Your task to perform on an android device: What is the news today? Image 0: 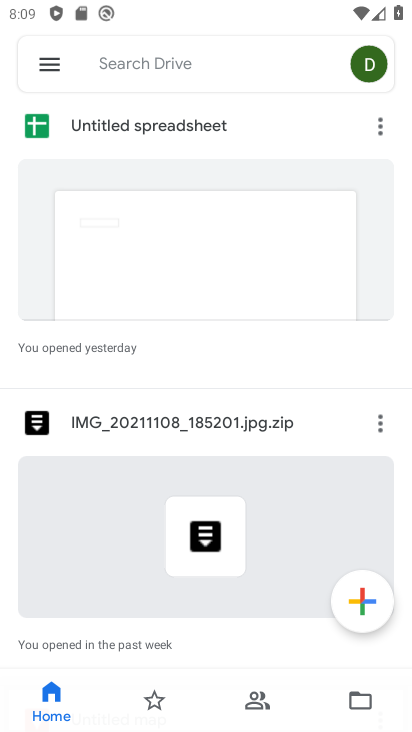
Step 0: press back button
Your task to perform on an android device: What is the news today? Image 1: 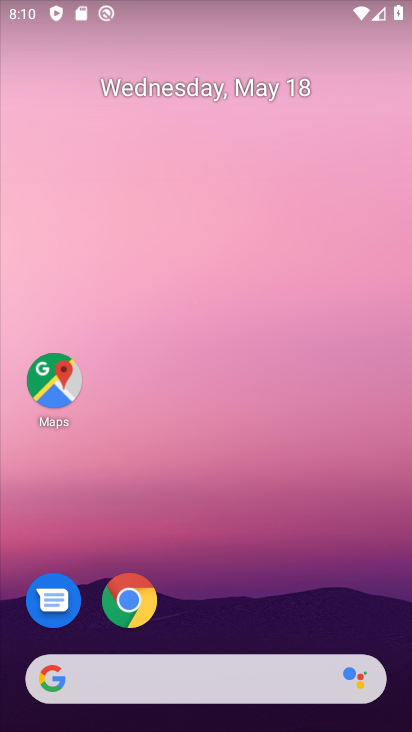
Step 1: click (223, 677)
Your task to perform on an android device: What is the news today? Image 2: 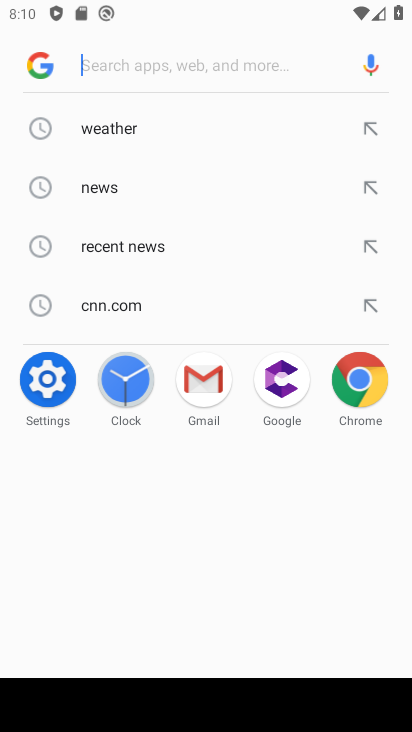
Step 2: type "news today"
Your task to perform on an android device: What is the news today? Image 3: 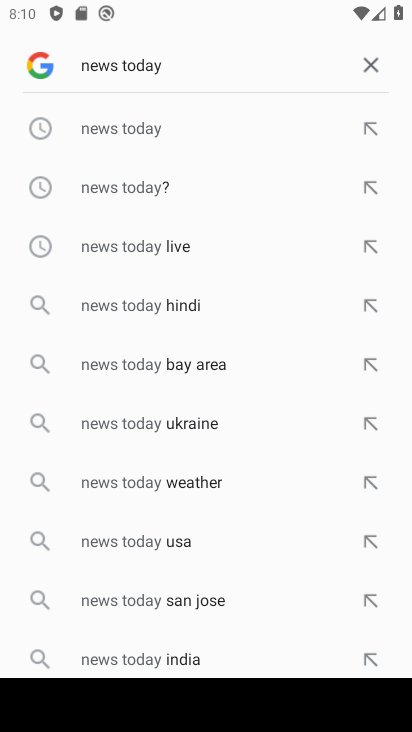
Step 3: click (122, 124)
Your task to perform on an android device: What is the news today? Image 4: 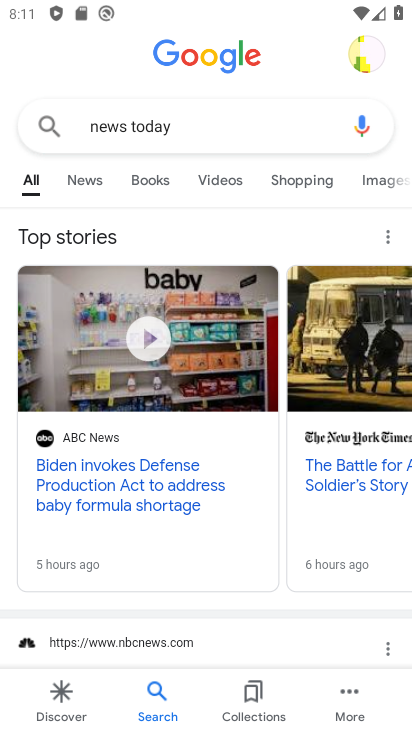
Step 4: task complete